Your task to perform on an android device: move an email to a new category in the gmail app Image 0: 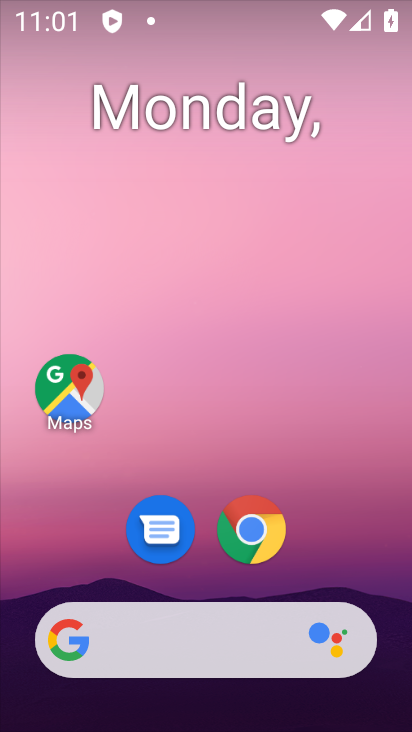
Step 0: drag from (71, 565) to (163, 17)
Your task to perform on an android device: move an email to a new category in the gmail app Image 1: 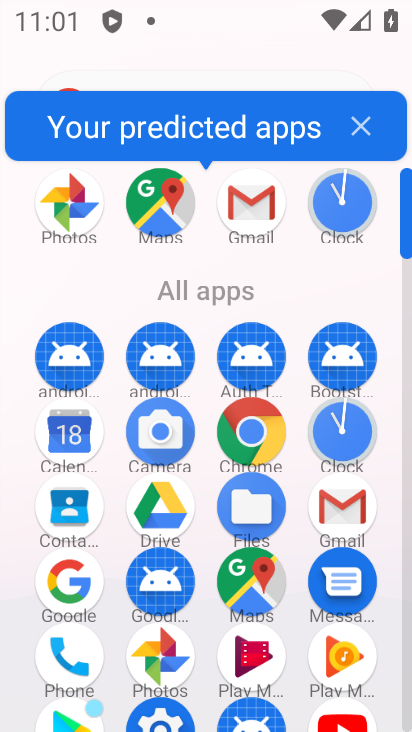
Step 1: click (253, 210)
Your task to perform on an android device: move an email to a new category in the gmail app Image 2: 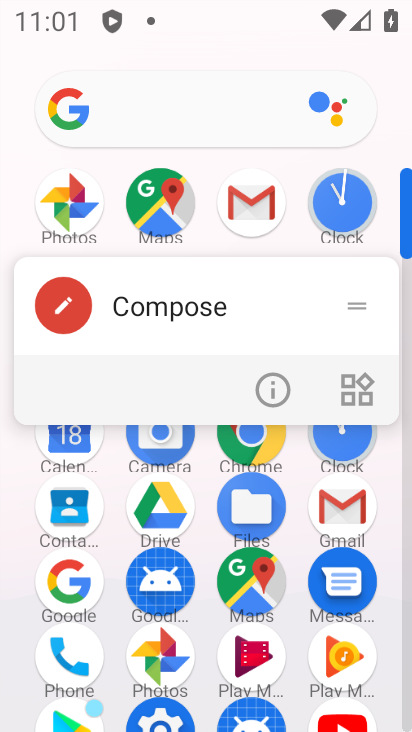
Step 2: click (252, 211)
Your task to perform on an android device: move an email to a new category in the gmail app Image 3: 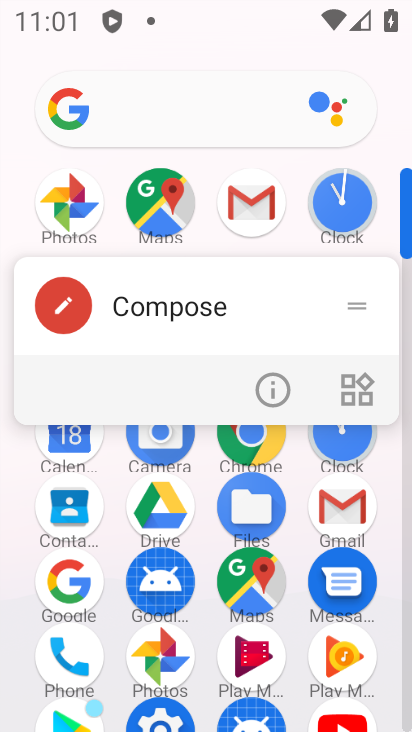
Step 3: click (252, 211)
Your task to perform on an android device: move an email to a new category in the gmail app Image 4: 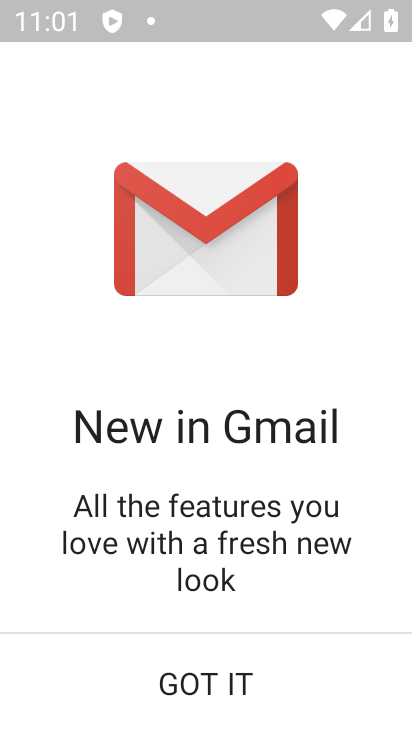
Step 4: click (214, 673)
Your task to perform on an android device: move an email to a new category in the gmail app Image 5: 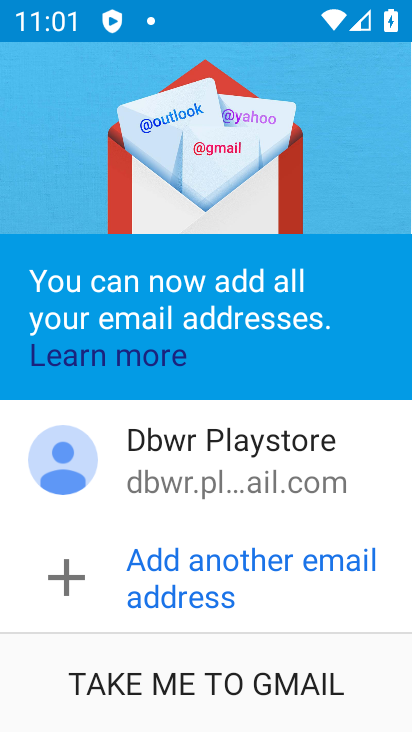
Step 5: click (211, 669)
Your task to perform on an android device: move an email to a new category in the gmail app Image 6: 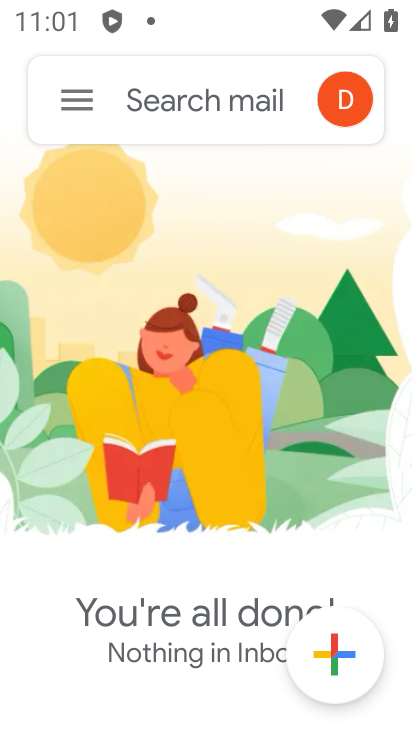
Step 6: click (70, 111)
Your task to perform on an android device: move an email to a new category in the gmail app Image 7: 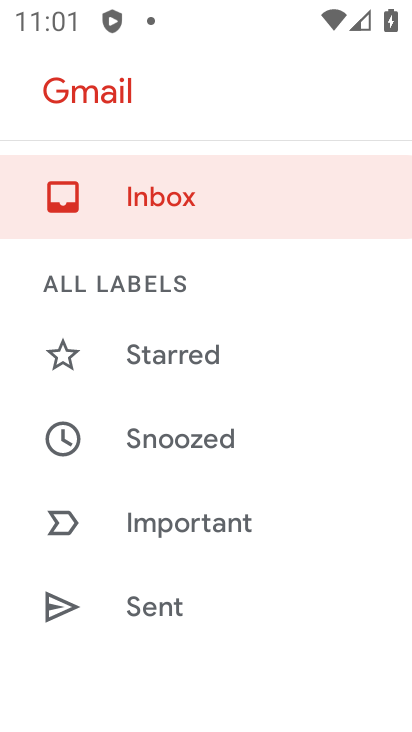
Step 7: drag from (219, 561) to (231, 204)
Your task to perform on an android device: move an email to a new category in the gmail app Image 8: 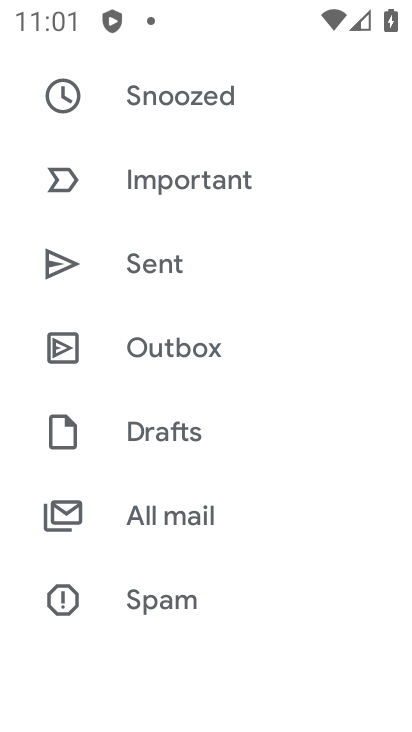
Step 8: click (182, 526)
Your task to perform on an android device: move an email to a new category in the gmail app Image 9: 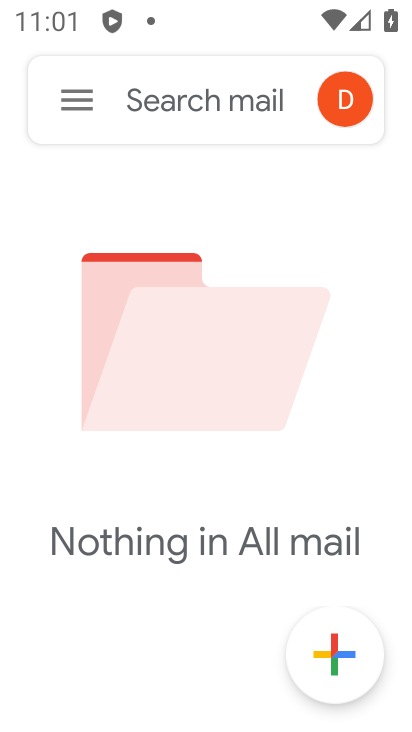
Step 9: task complete